Your task to perform on an android device: Find coffee shops on Maps Image 0: 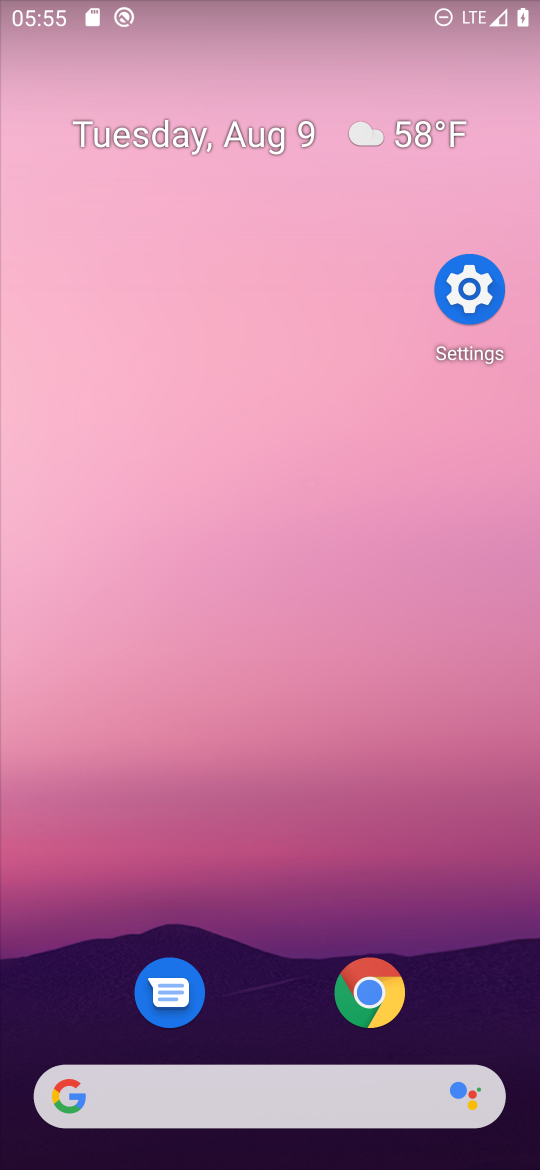
Step 0: drag from (376, 1106) to (285, 0)
Your task to perform on an android device: Find coffee shops on Maps Image 1: 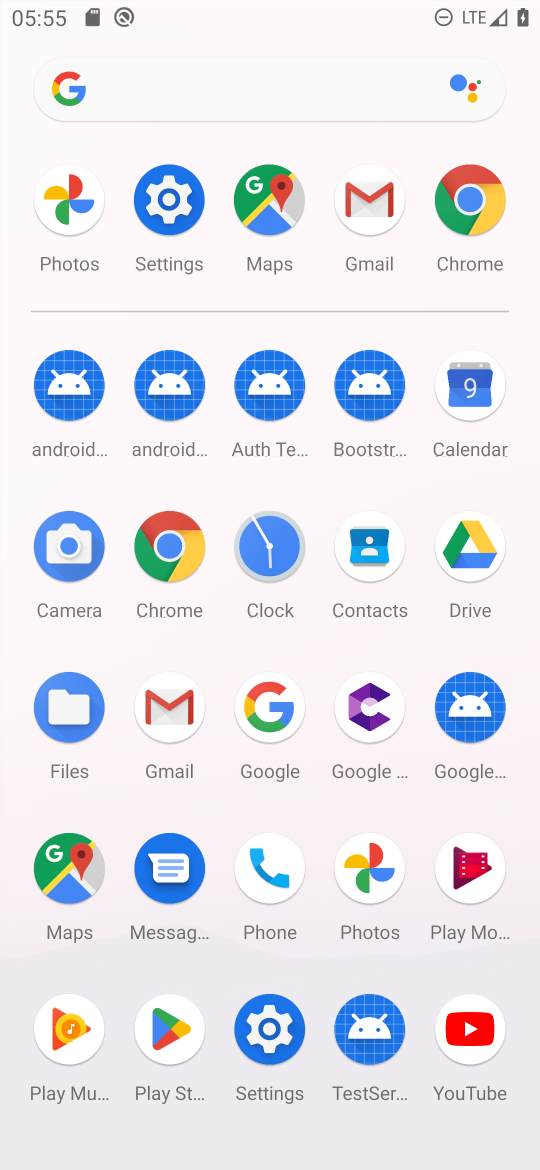
Step 1: click (94, 884)
Your task to perform on an android device: Find coffee shops on Maps Image 2: 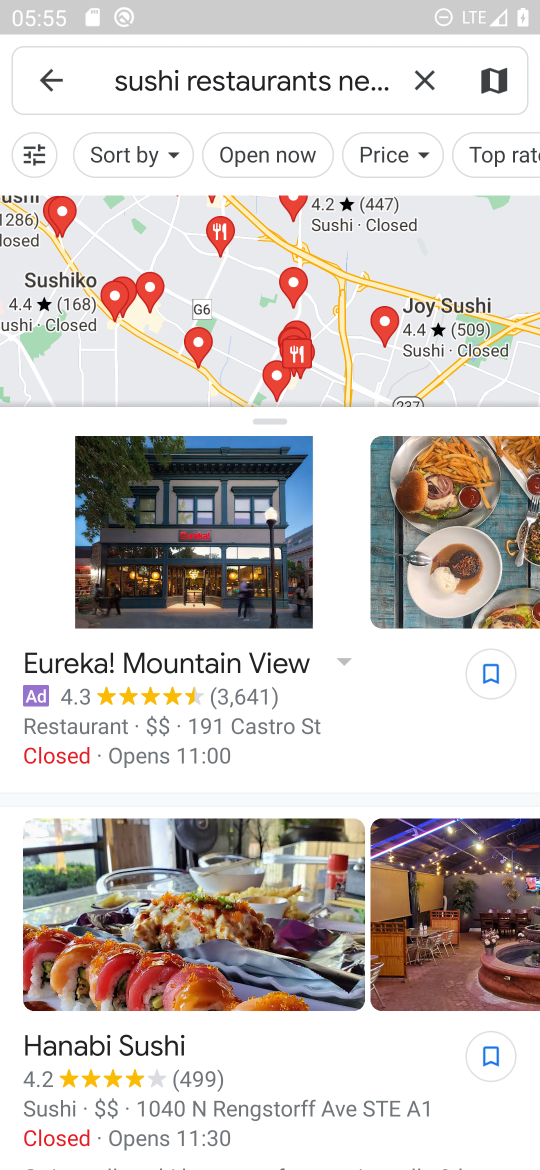
Step 2: click (415, 74)
Your task to perform on an android device: Find coffee shops on Maps Image 3: 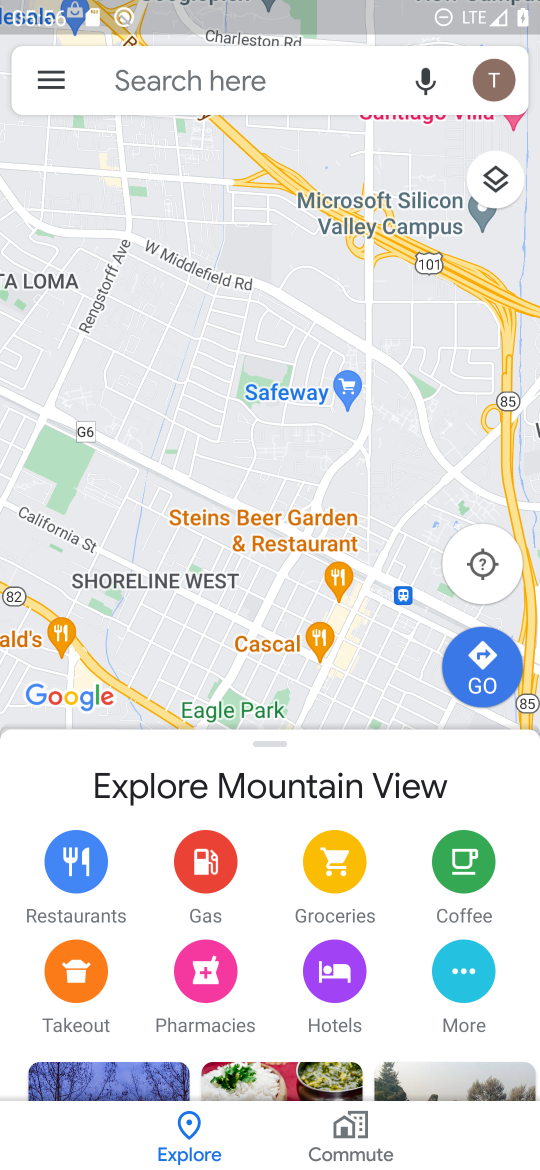
Step 3: click (200, 105)
Your task to perform on an android device: Find coffee shops on Maps Image 4: 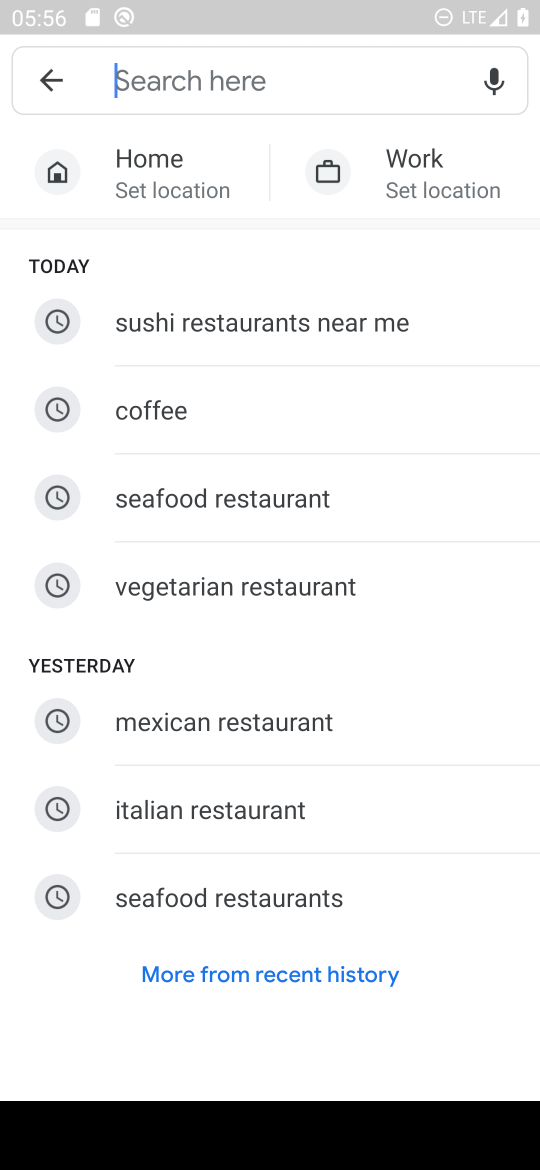
Step 4: type "coffee shops"
Your task to perform on an android device: Find coffee shops on Maps Image 5: 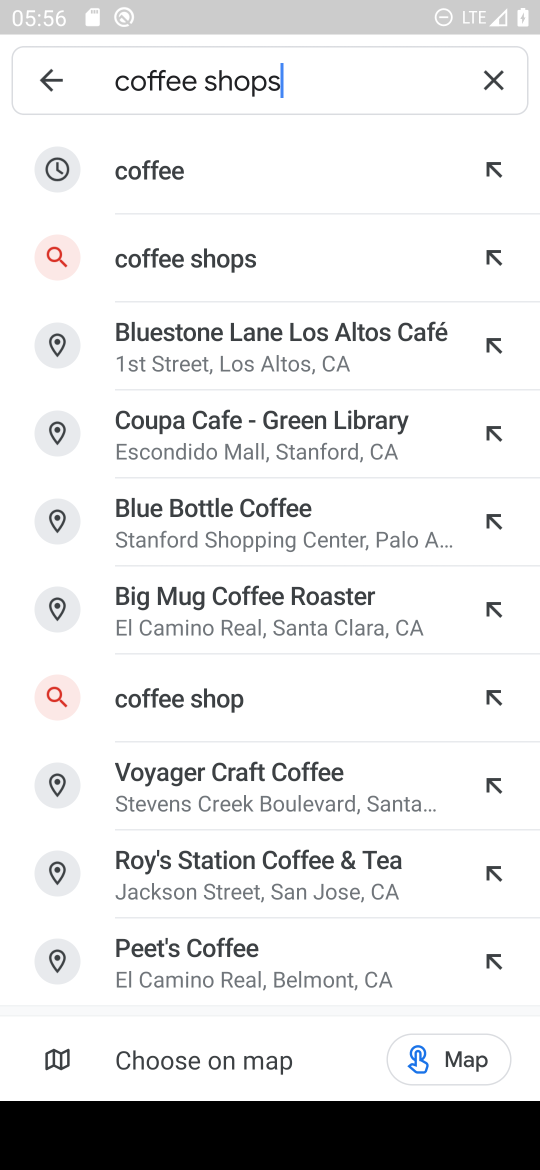
Step 5: click (292, 233)
Your task to perform on an android device: Find coffee shops on Maps Image 6: 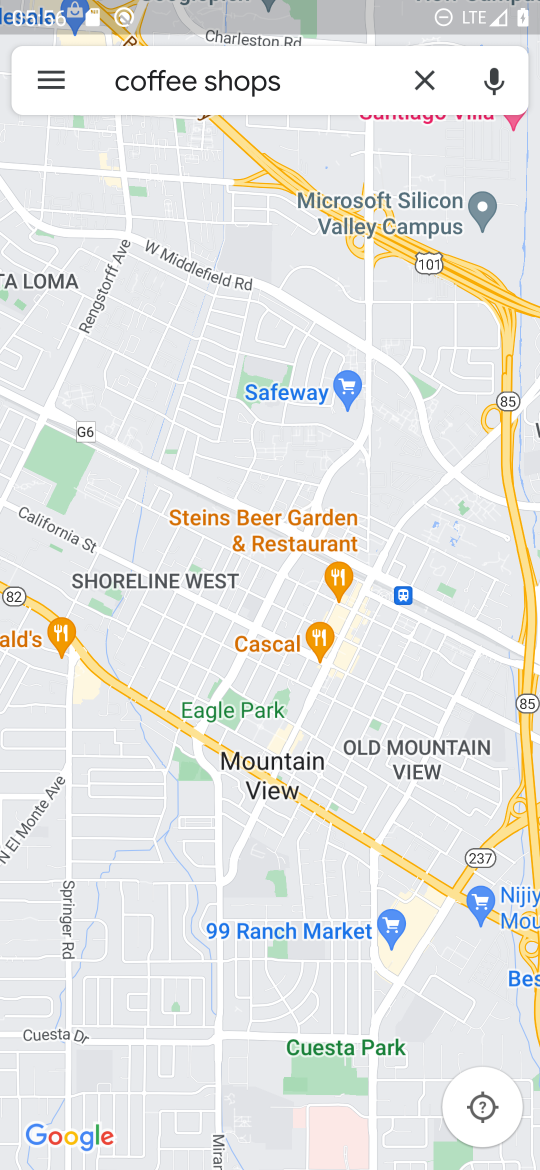
Step 6: task complete